Your task to perform on an android device: View the shopping cart on newegg. Add razer kraken to the cart on newegg, then select checkout. Image 0: 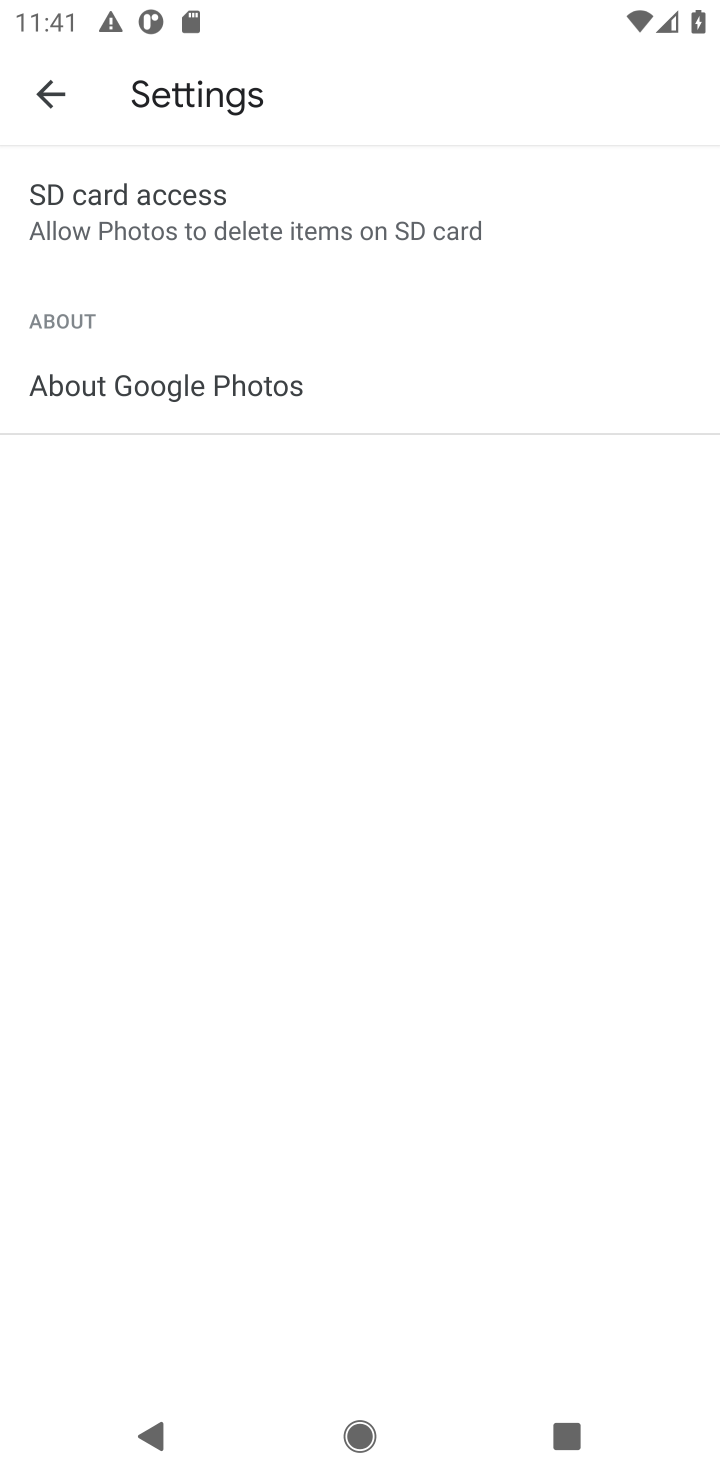
Step 0: press home button
Your task to perform on an android device: View the shopping cart on newegg. Add razer kraken to the cart on newegg, then select checkout. Image 1: 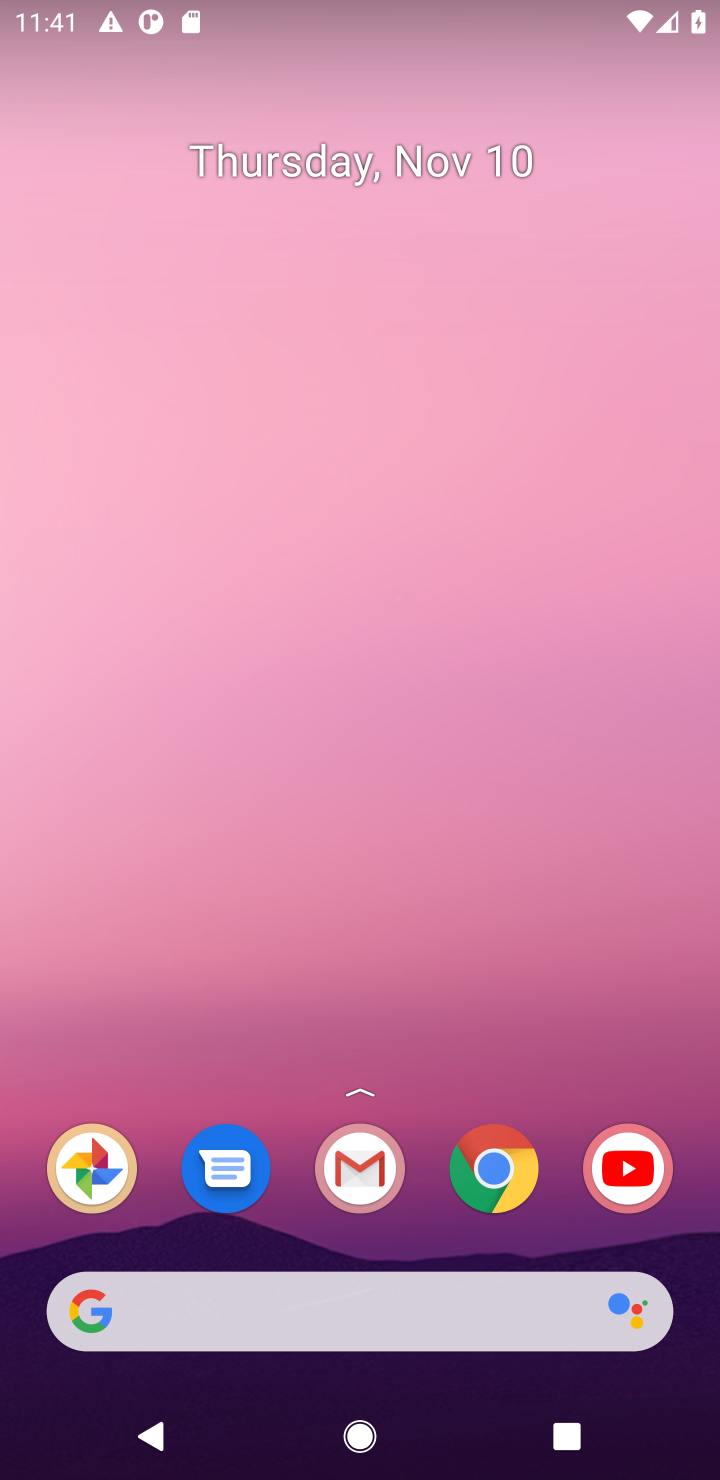
Step 1: click (487, 1172)
Your task to perform on an android device: View the shopping cart on newegg. Add razer kraken to the cart on newegg, then select checkout. Image 2: 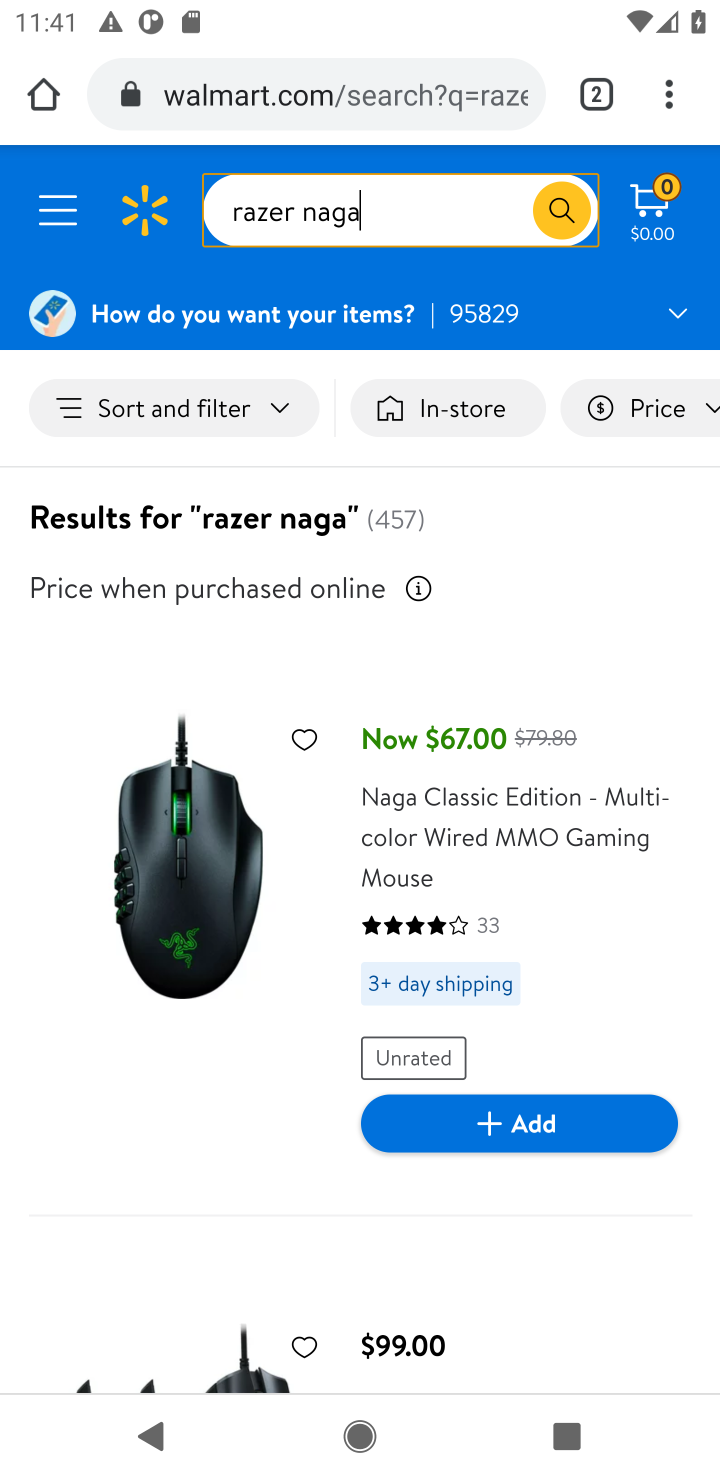
Step 2: click (310, 72)
Your task to perform on an android device: View the shopping cart on newegg. Add razer kraken to the cart on newegg, then select checkout. Image 3: 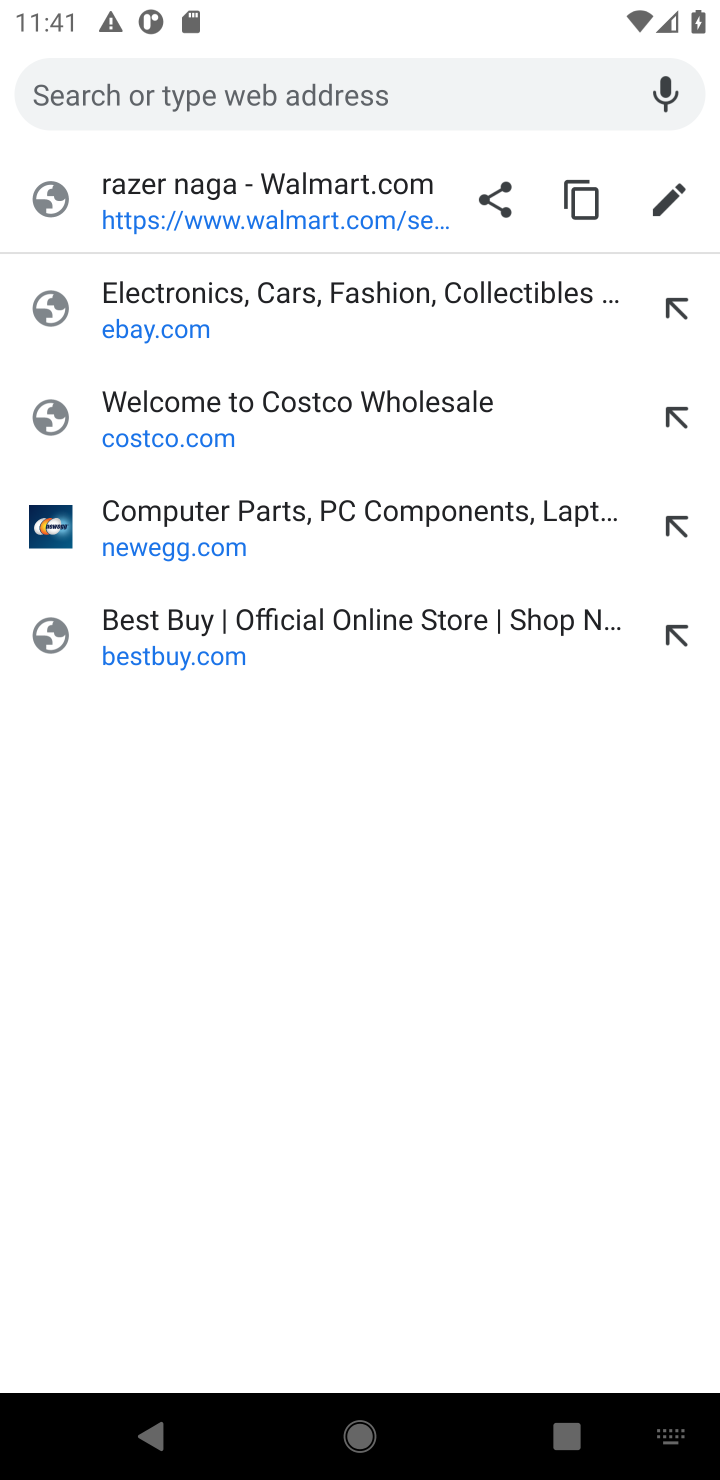
Step 3: click (188, 520)
Your task to perform on an android device: View the shopping cart on newegg. Add razer kraken to the cart on newegg, then select checkout. Image 4: 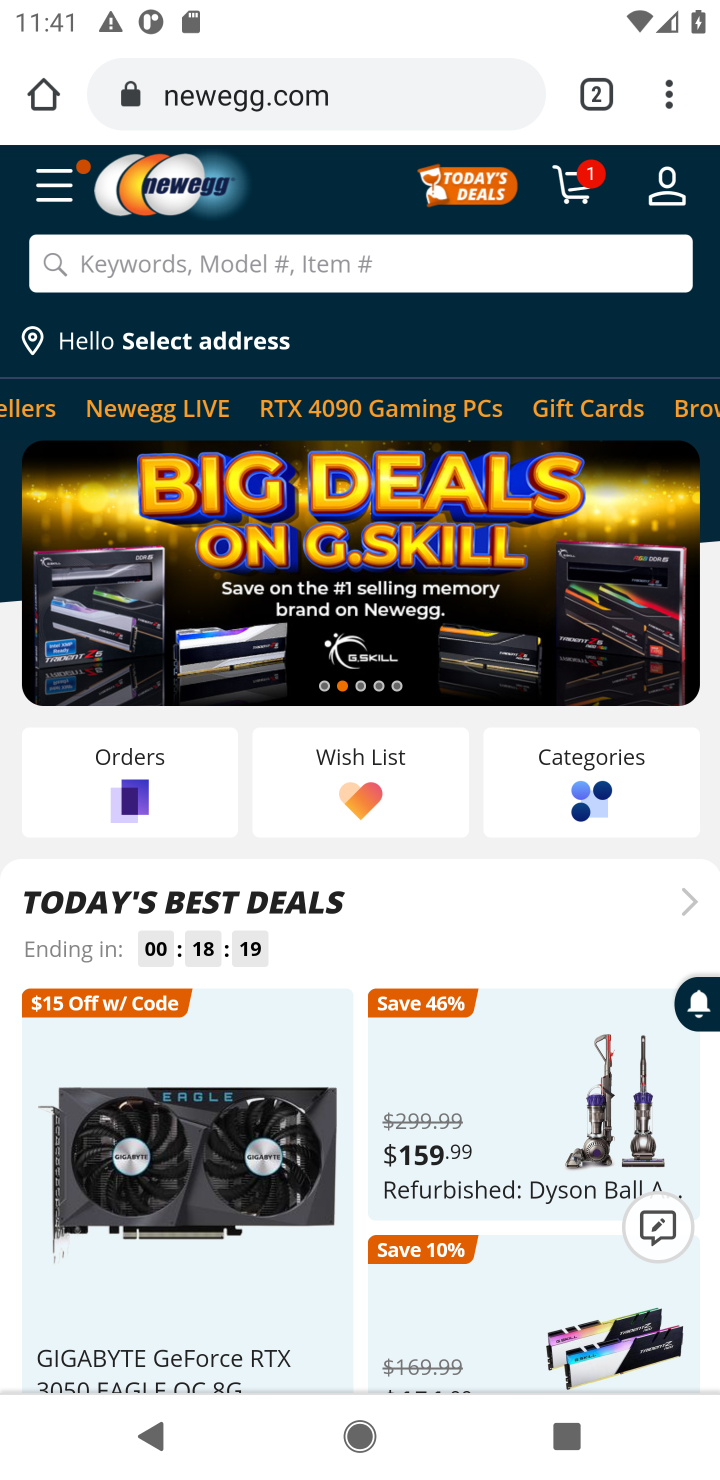
Step 4: click (575, 189)
Your task to perform on an android device: View the shopping cart on newegg. Add razer kraken to the cart on newegg, then select checkout. Image 5: 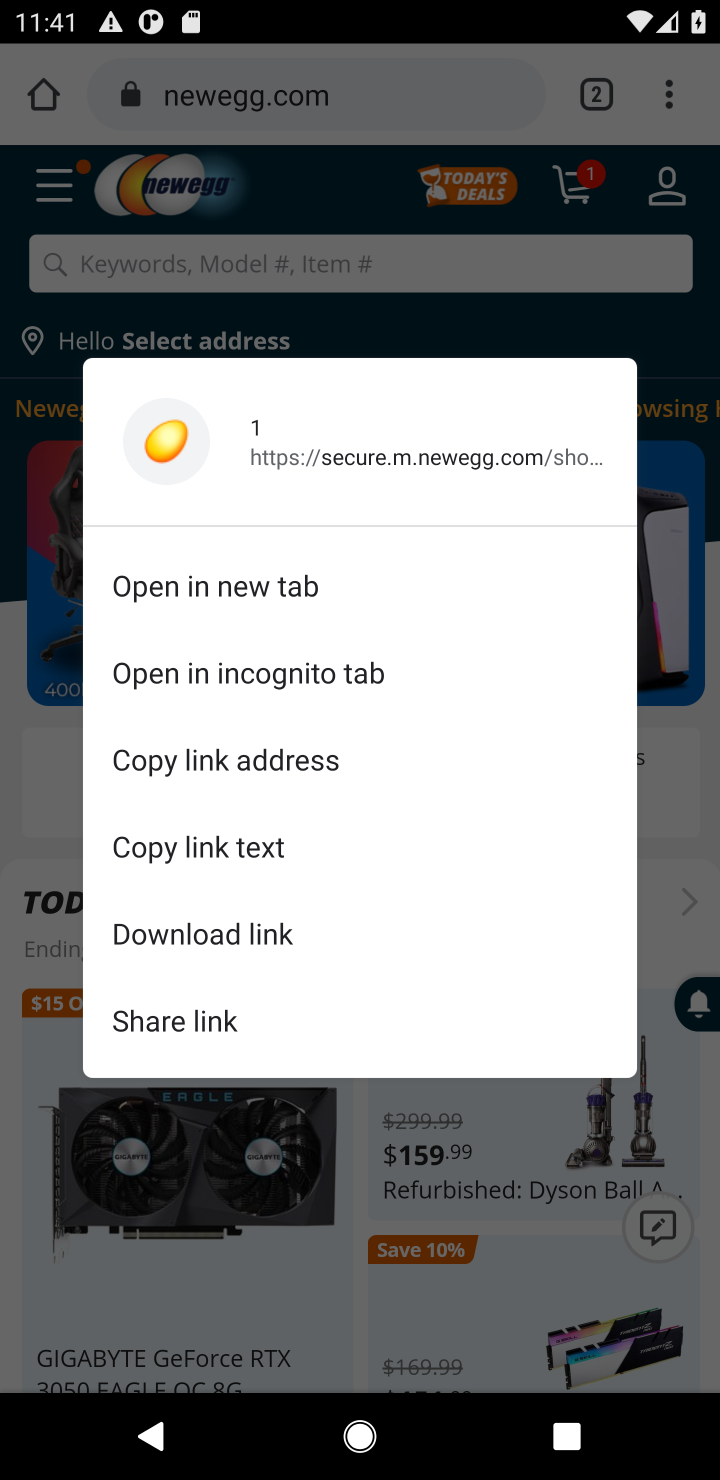
Step 5: click (575, 189)
Your task to perform on an android device: View the shopping cart on newegg. Add razer kraken to the cart on newegg, then select checkout. Image 6: 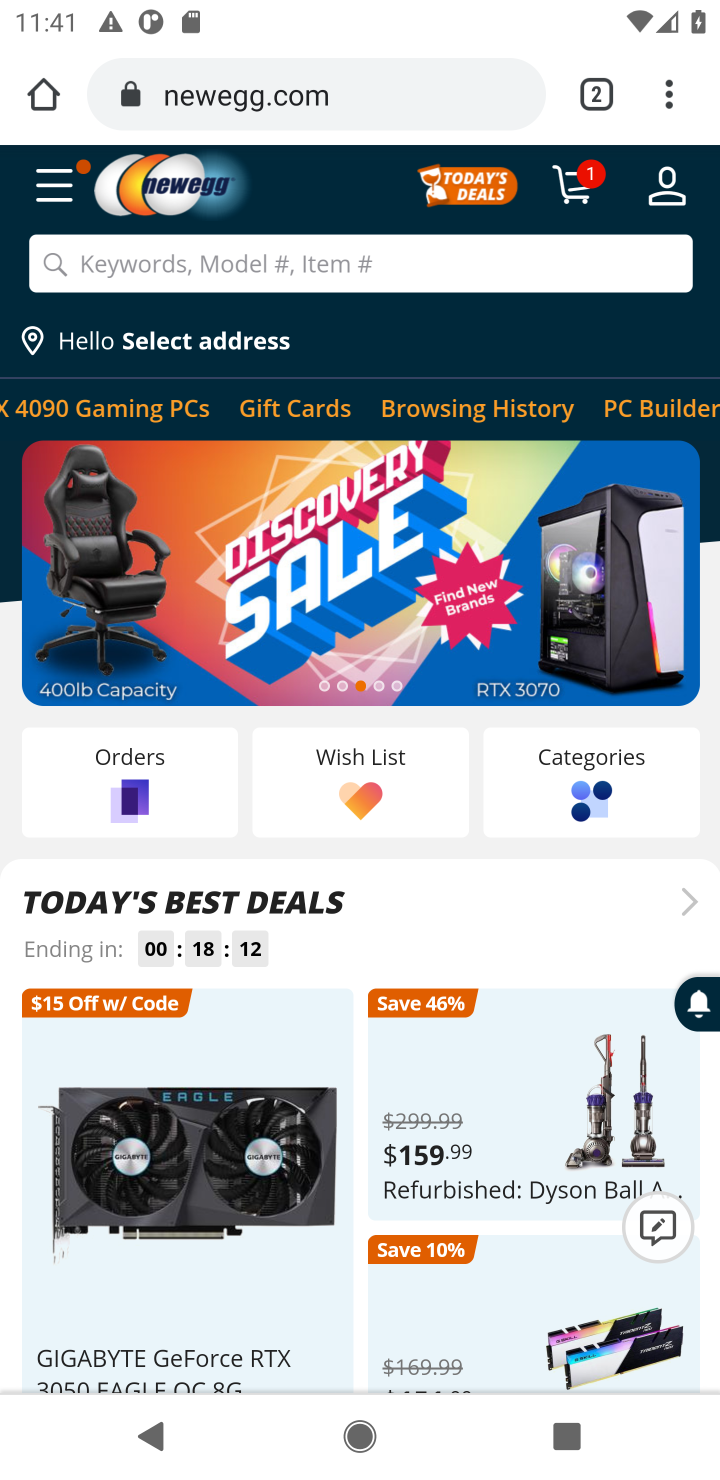
Step 6: click (575, 189)
Your task to perform on an android device: View the shopping cart on newegg. Add razer kraken to the cart on newegg, then select checkout. Image 7: 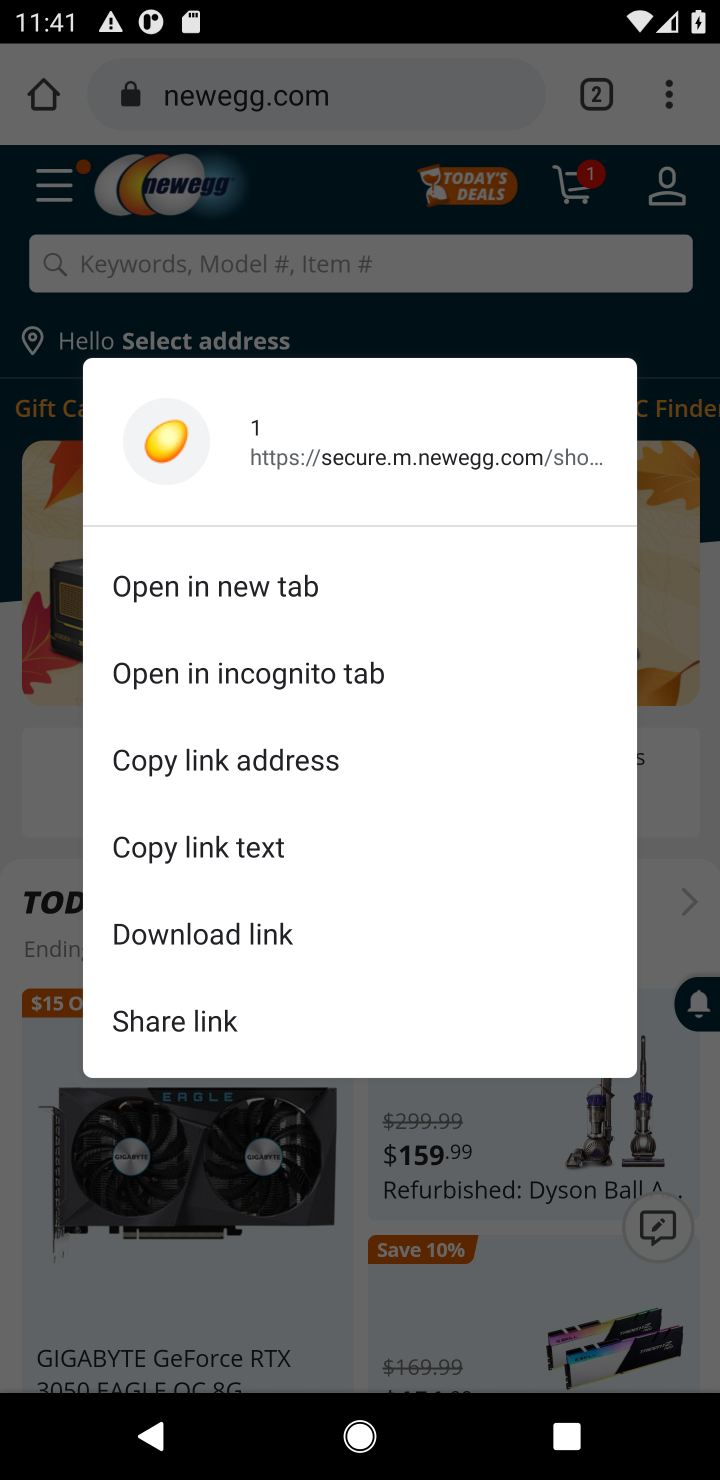
Step 7: click (575, 189)
Your task to perform on an android device: View the shopping cart on newegg. Add razer kraken to the cart on newegg, then select checkout. Image 8: 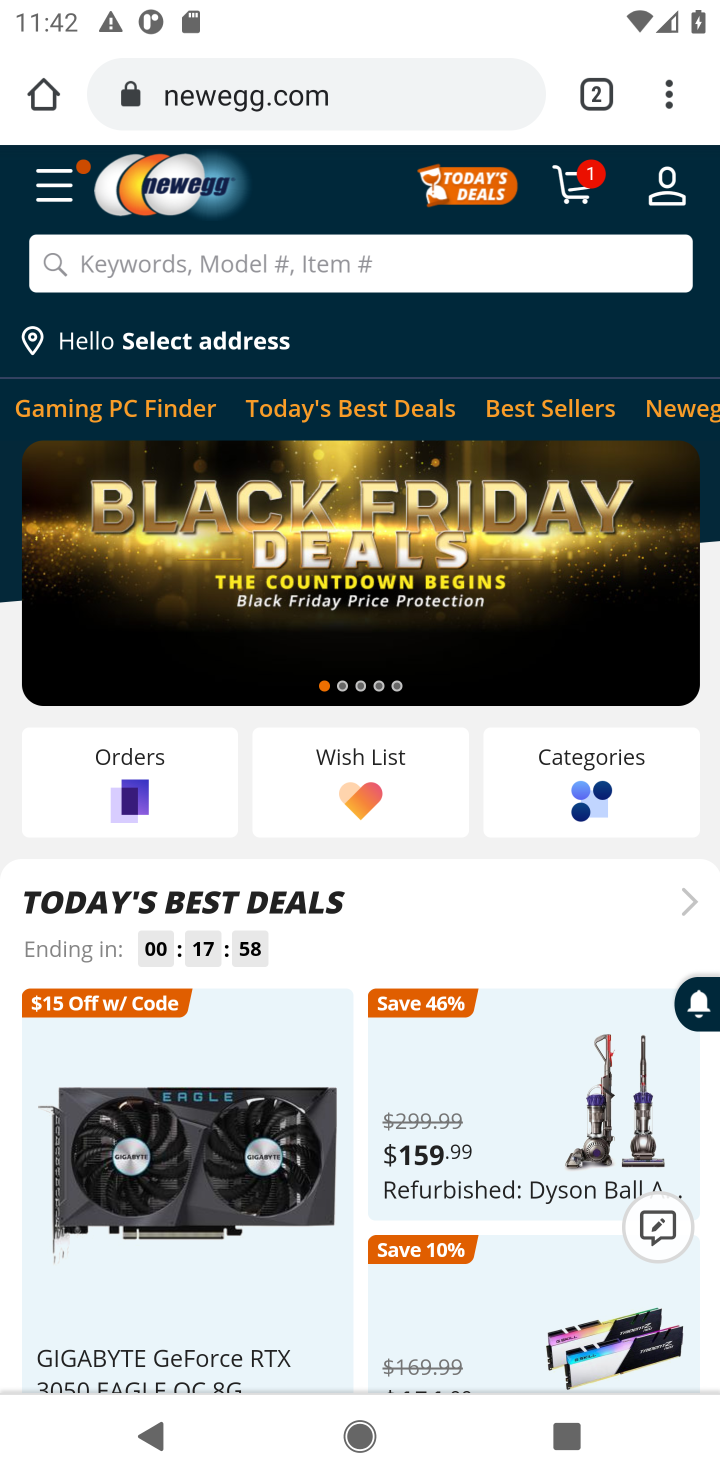
Step 8: click (575, 189)
Your task to perform on an android device: View the shopping cart on newegg. Add razer kraken to the cart on newegg, then select checkout. Image 9: 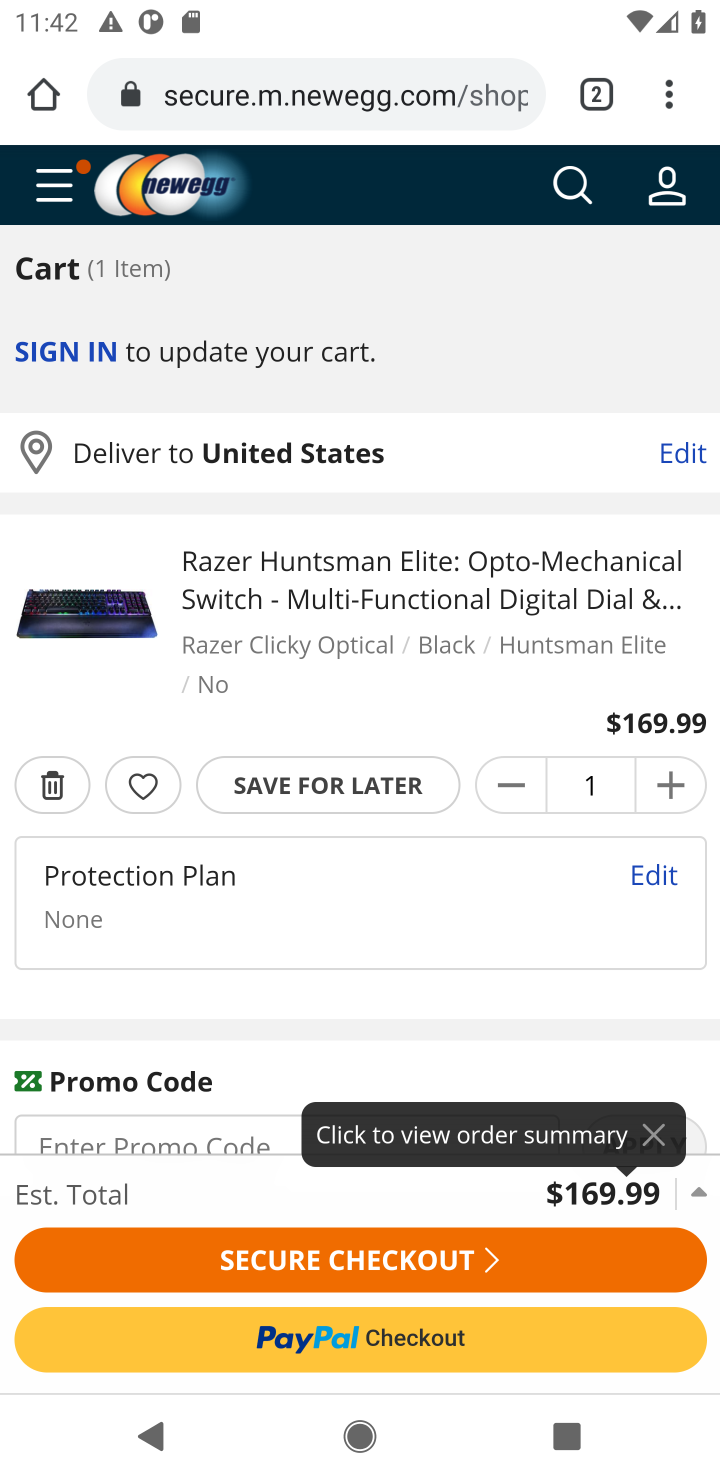
Step 9: drag from (368, 897) to (409, 543)
Your task to perform on an android device: View the shopping cart on newegg. Add razer kraken to the cart on newegg, then select checkout. Image 10: 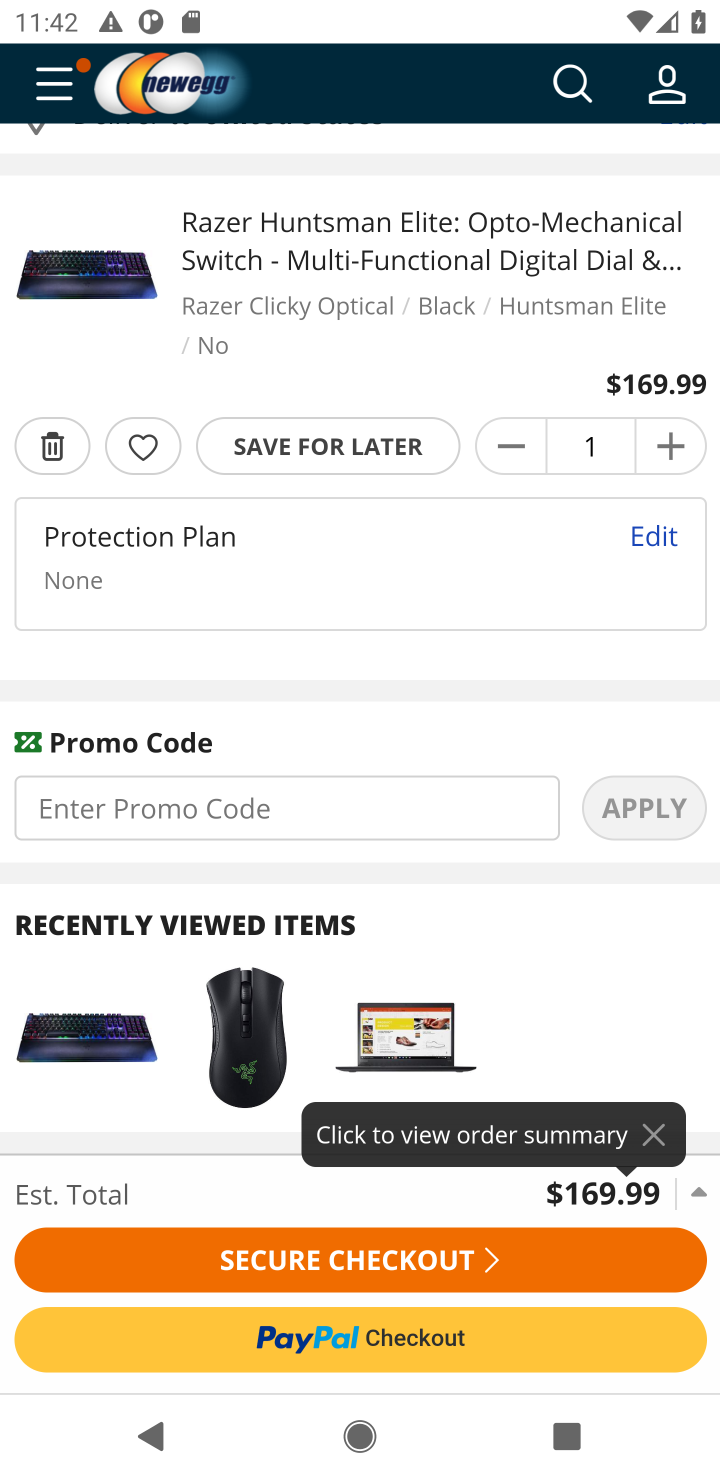
Step 10: click (569, 79)
Your task to perform on an android device: View the shopping cart on newegg. Add razer kraken to the cart on newegg, then select checkout. Image 11: 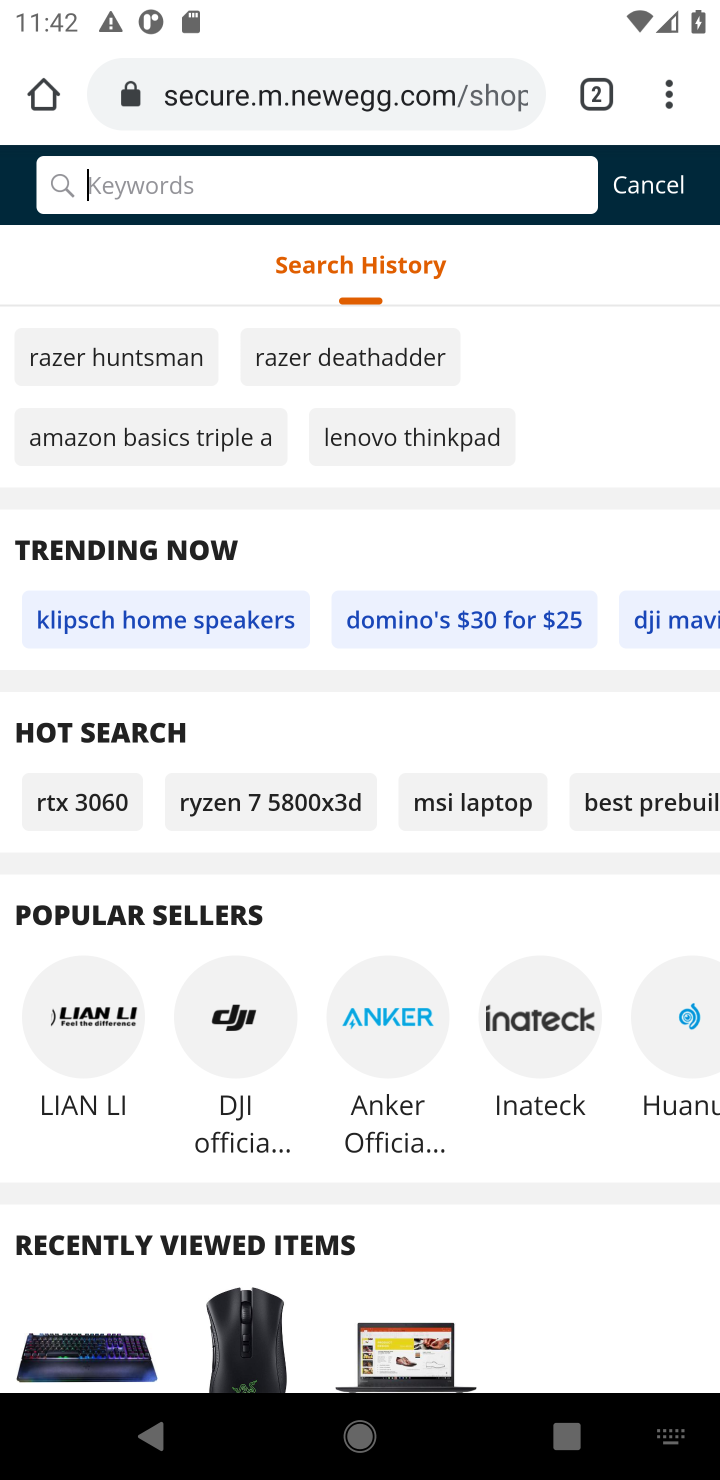
Step 11: type "razer kraken"
Your task to perform on an android device: View the shopping cart on newegg. Add razer kraken to the cart on newegg, then select checkout. Image 12: 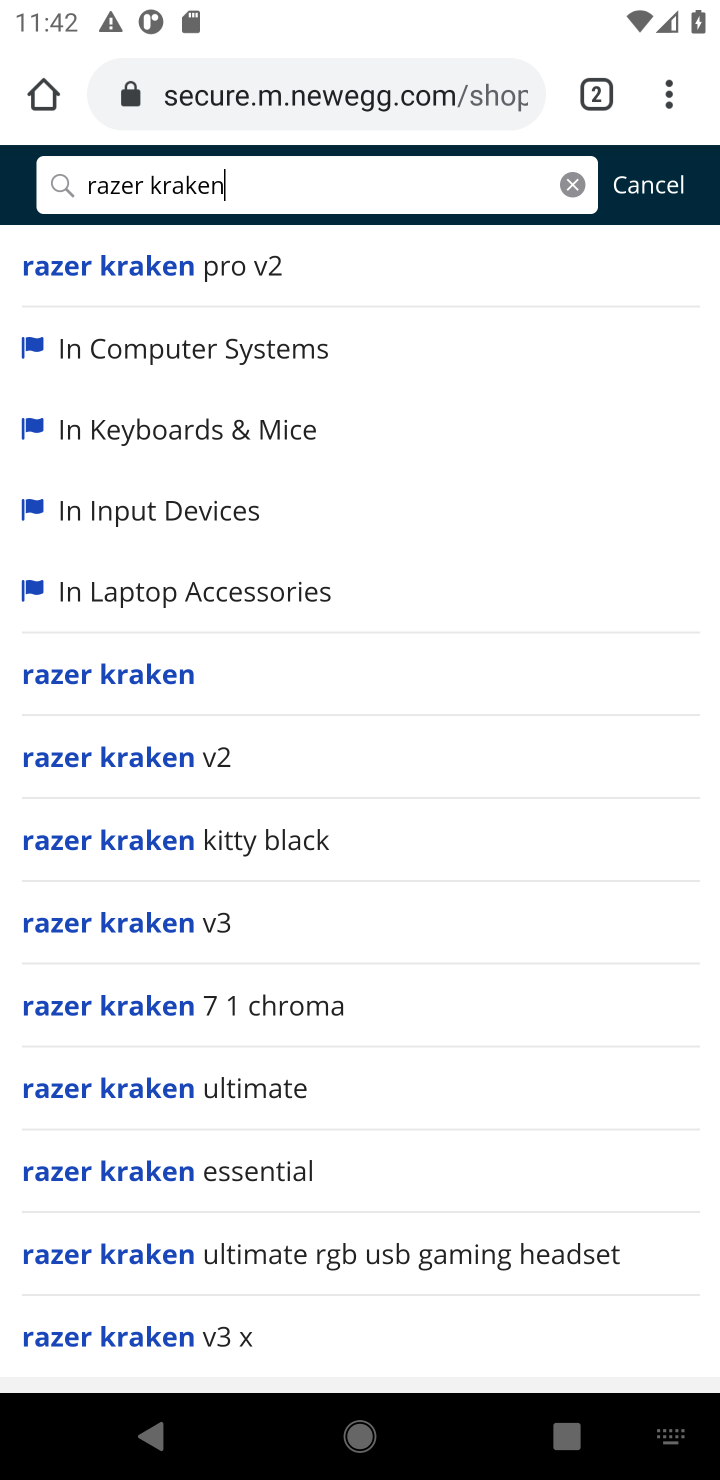
Step 12: click (87, 680)
Your task to perform on an android device: View the shopping cart on newegg. Add razer kraken to the cart on newegg, then select checkout. Image 13: 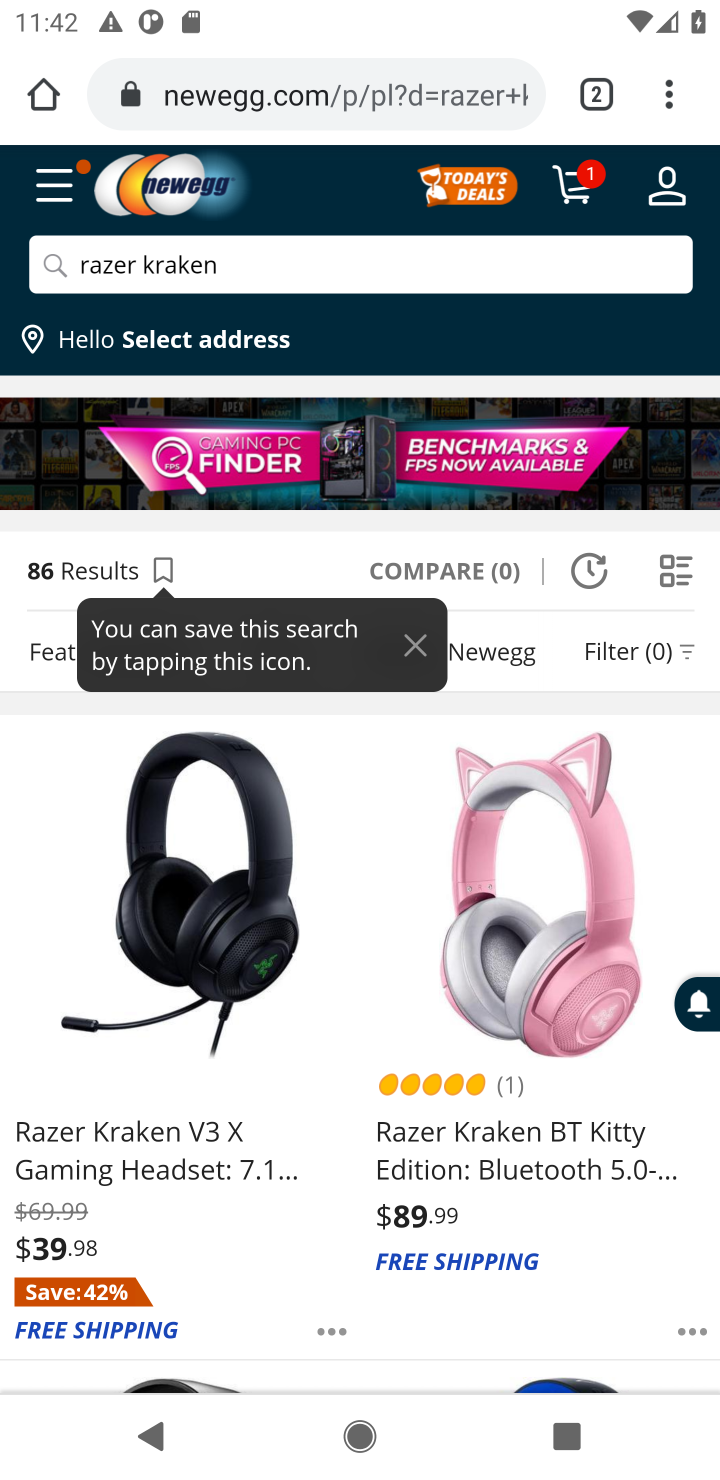
Step 13: click (102, 980)
Your task to perform on an android device: View the shopping cart on newegg. Add razer kraken to the cart on newegg, then select checkout. Image 14: 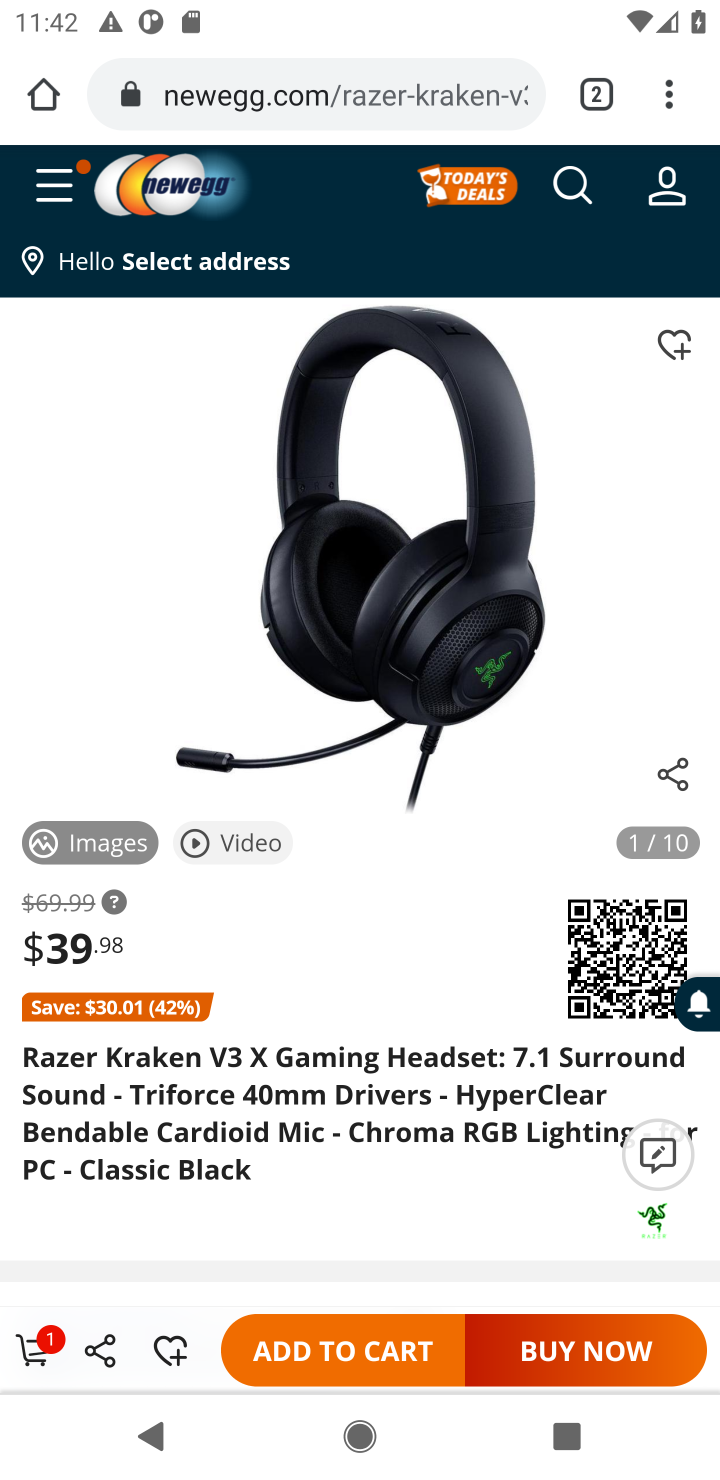
Step 14: click (348, 1362)
Your task to perform on an android device: View the shopping cart on newegg. Add razer kraken to the cart on newegg, then select checkout. Image 15: 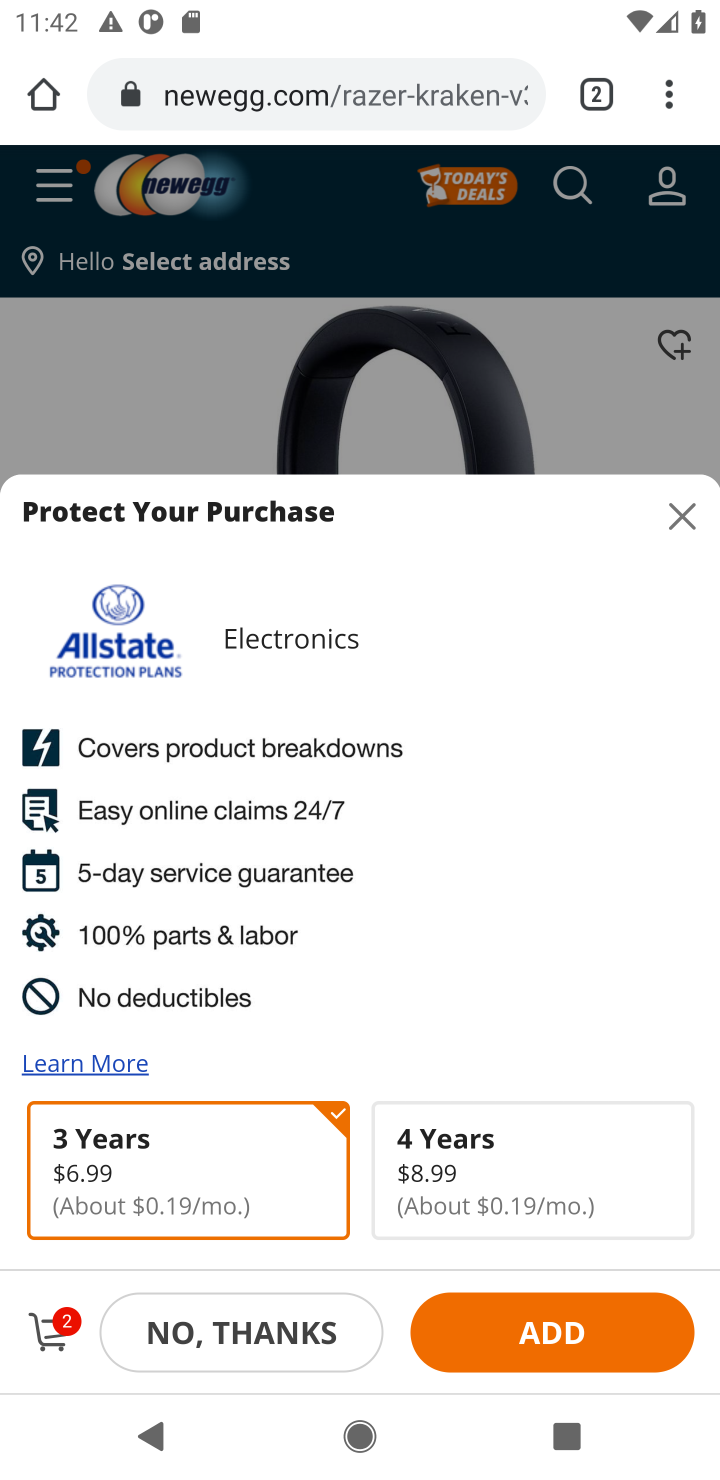
Step 15: click (61, 1338)
Your task to perform on an android device: View the shopping cart on newegg. Add razer kraken to the cart on newegg, then select checkout. Image 16: 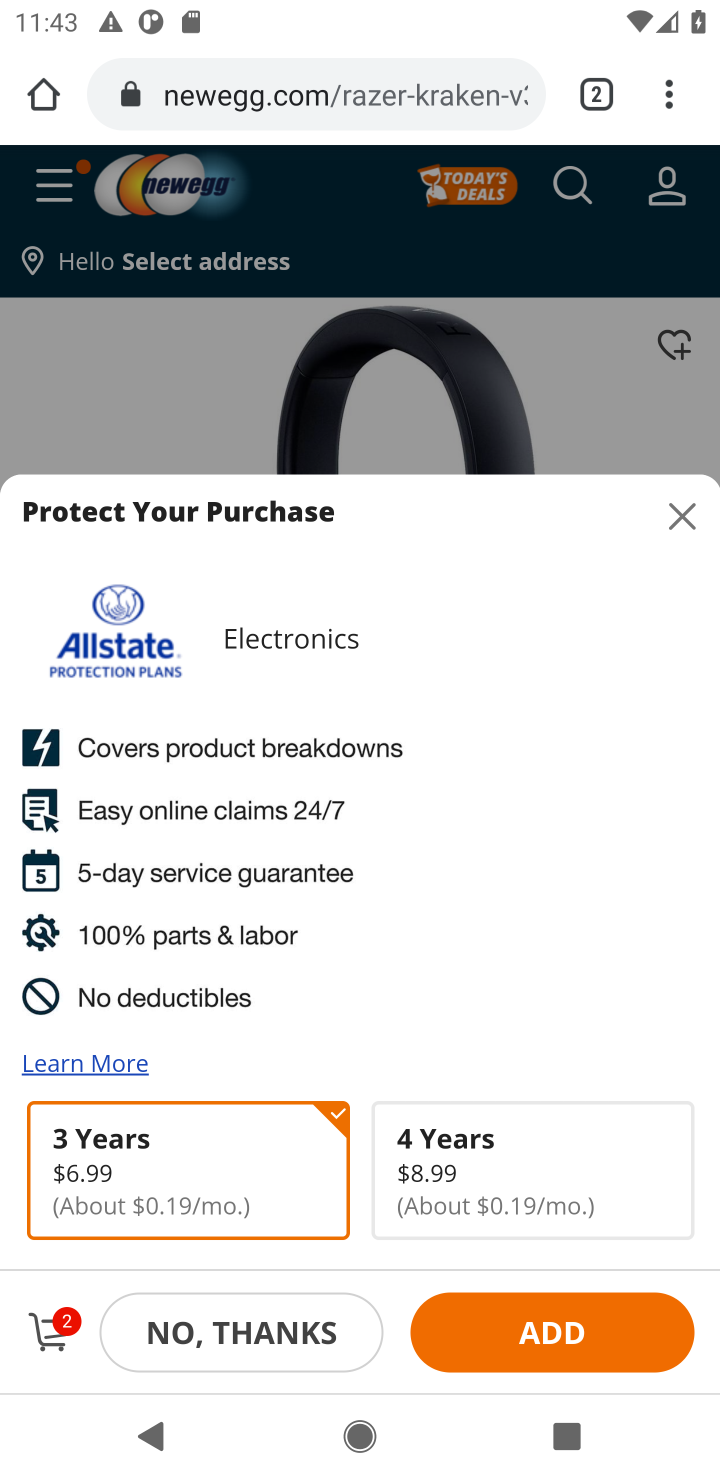
Step 16: click (48, 1332)
Your task to perform on an android device: View the shopping cart on newegg. Add razer kraken to the cart on newegg, then select checkout. Image 17: 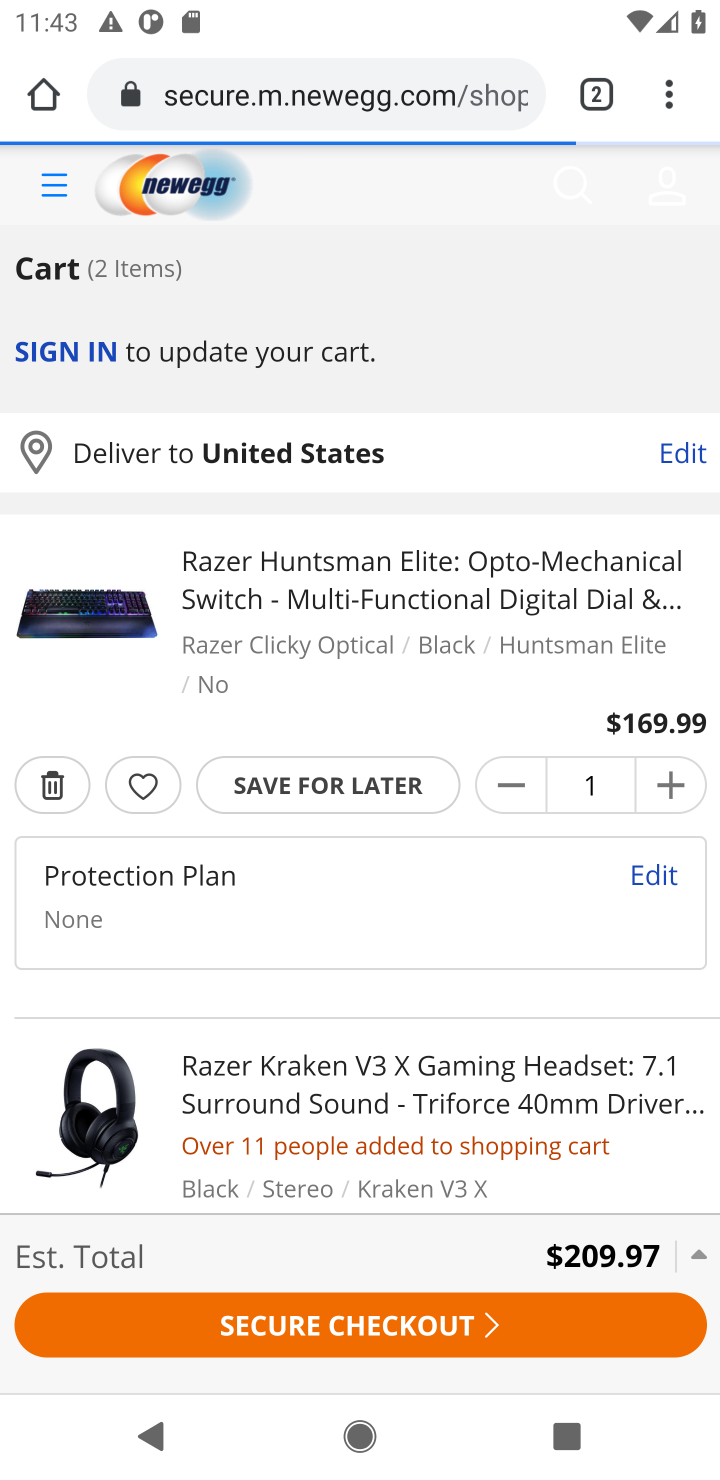
Step 17: click (401, 1309)
Your task to perform on an android device: View the shopping cart on newegg. Add razer kraken to the cart on newegg, then select checkout. Image 18: 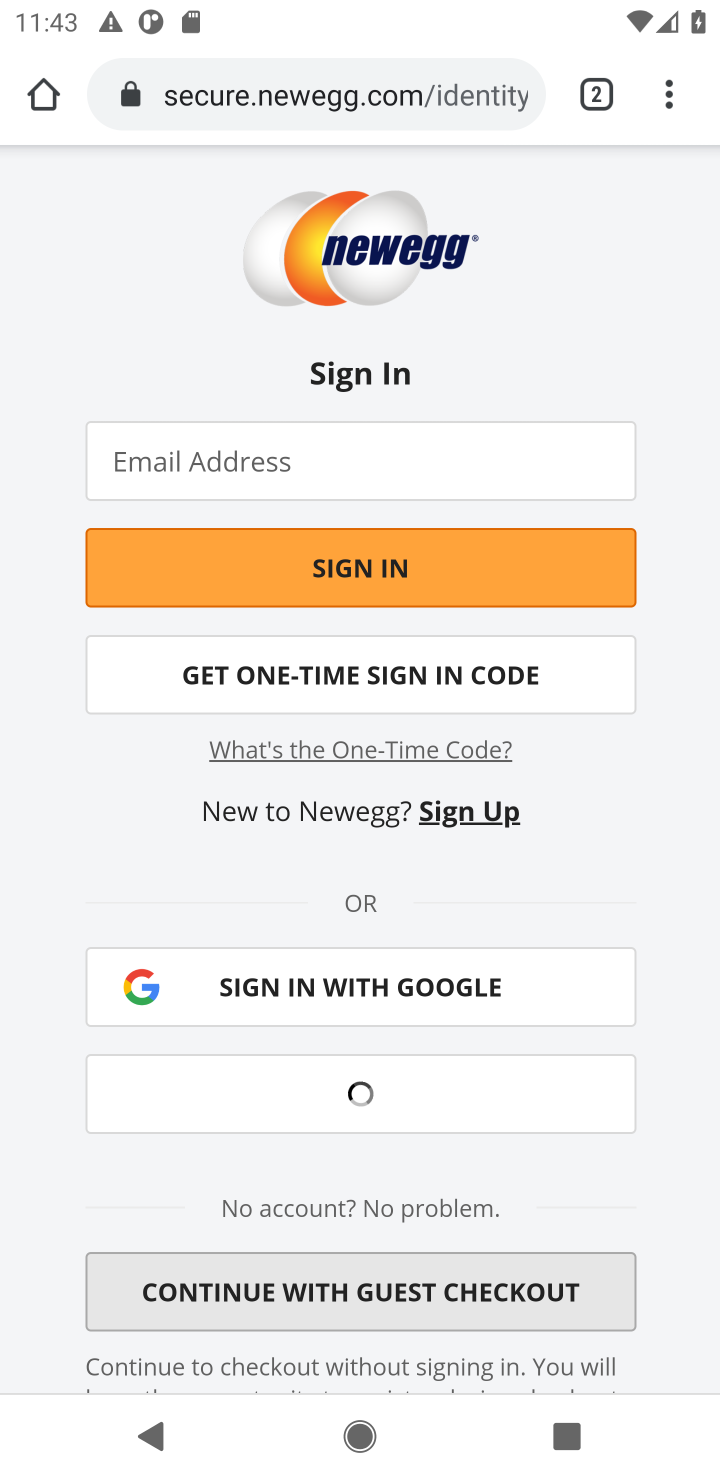
Step 18: task complete